Your task to perform on an android device: turn notification dots off Image 0: 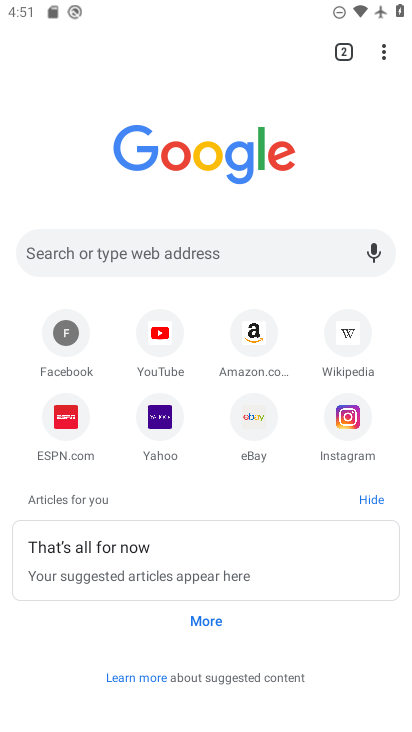
Step 0: press home button
Your task to perform on an android device: turn notification dots off Image 1: 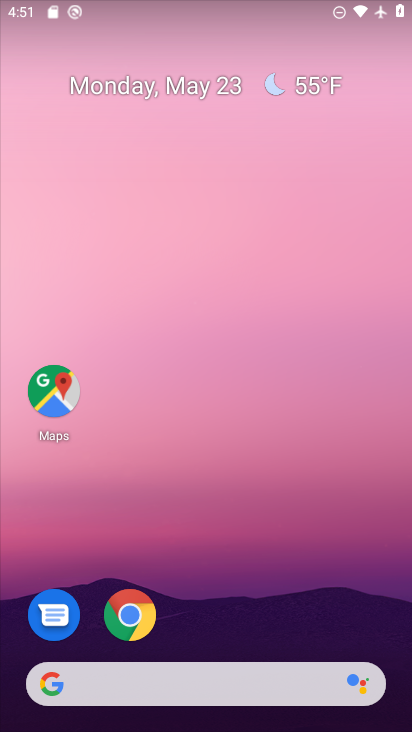
Step 1: drag from (343, 622) to (351, 181)
Your task to perform on an android device: turn notification dots off Image 2: 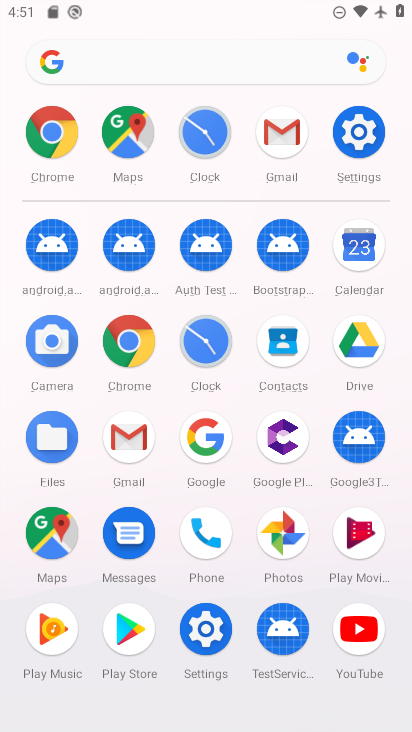
Step 2: click (224, 643)
Your task to perform on an android device: turn notification dots off Image 3: 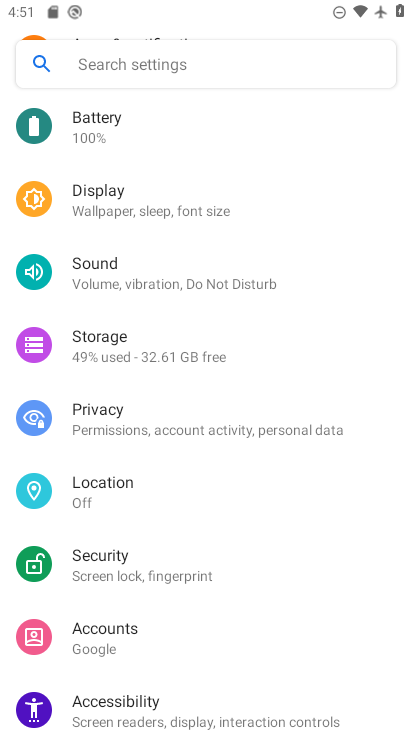
Step 3: drag from (320, 343) to (316, 474)
Your task to perform on an android device: turn notification dots off Image 4: 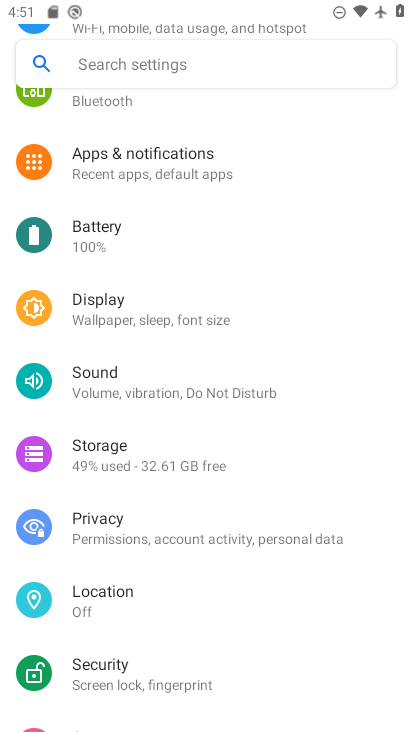
Step 4: drag from (320, 317) to (301, 476)
Your task to perform on an android device: turn notification dots off Image 5: 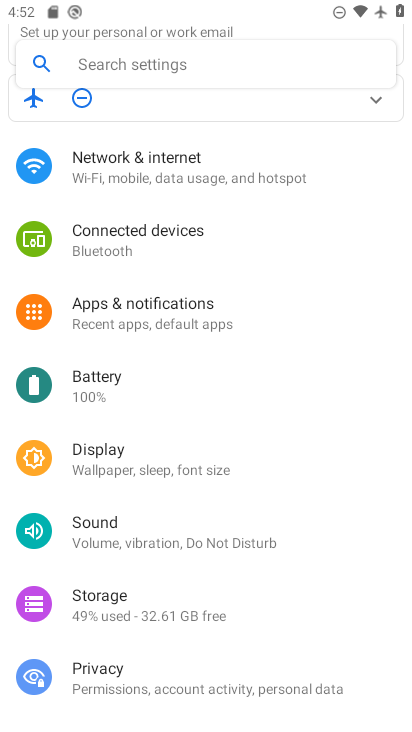
Step 5: drag from (314, 309) to (309, 459)
Your task to perform on an android device: turn notification dots off Image 6: 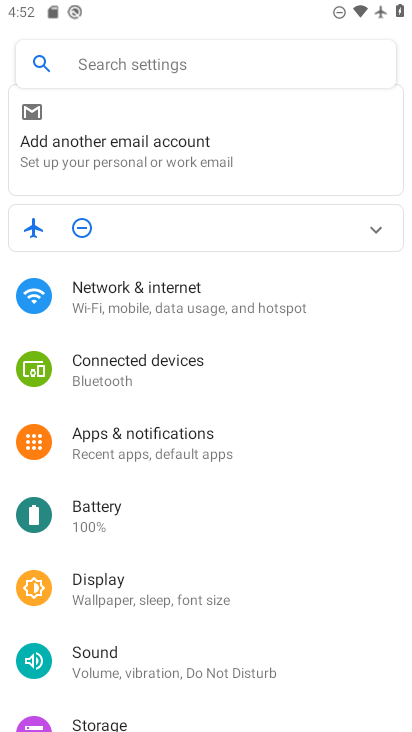
Step 6: click (184, 428)
Your task to perform on an android device: turn notification dots off Image 7: 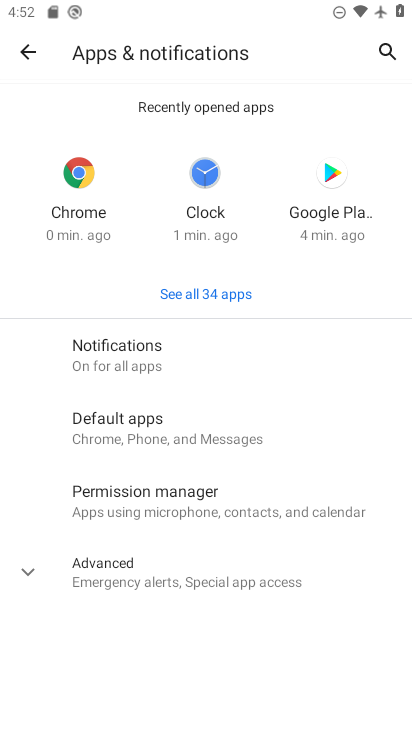
Step 7: click (167, 367)
Your task to perform on an android device: turn notification dots off Image 8: 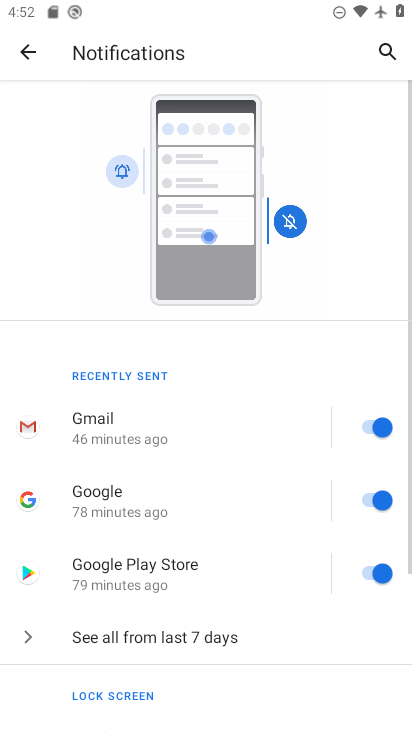
Step 8: drag from (259, 526) to (259, 420)
Your task to perform on an android device: turn notification dots off Image 9: 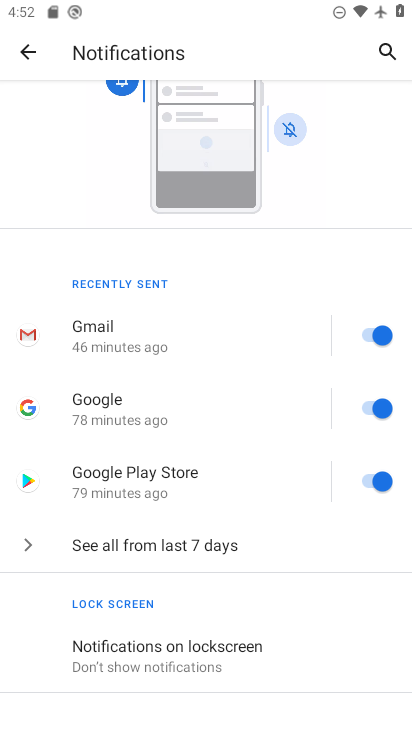
Step 9: drag from (275, 594) to (283, 426)
Your task to perform on an android device: turn notification dots off Image 10: 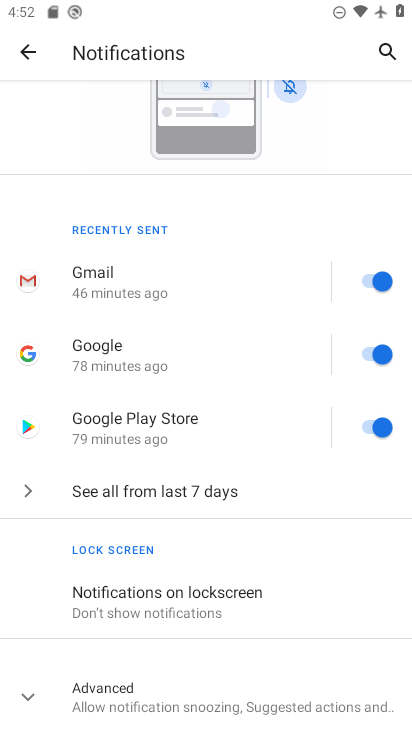
Step 10: drag from (287, 621) to (287, 504)
Your task to perform on an android device: turn notification dots off Image 11: 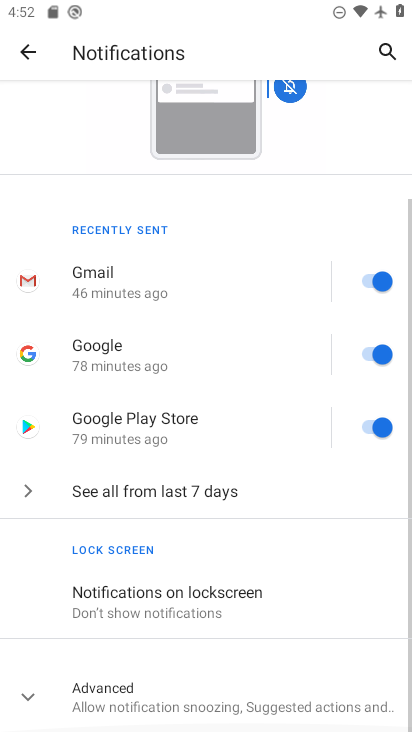
Step 11: click (265, 678)
Your task to perform on an android device: turn notification dots off Image 12: 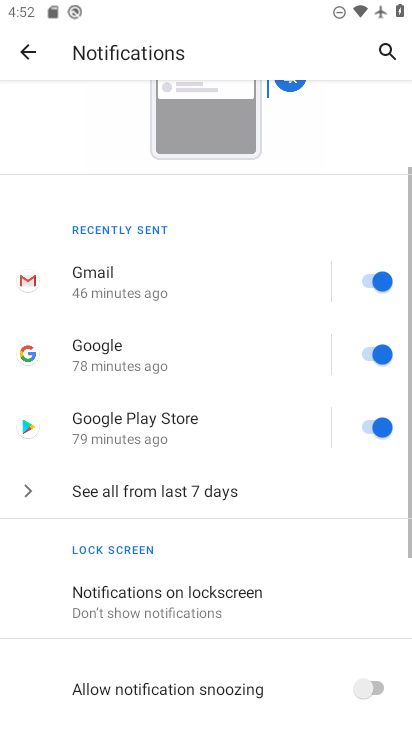
Step 12: task complete